Your task to perform on an android device: Go to battery settings Image 0: 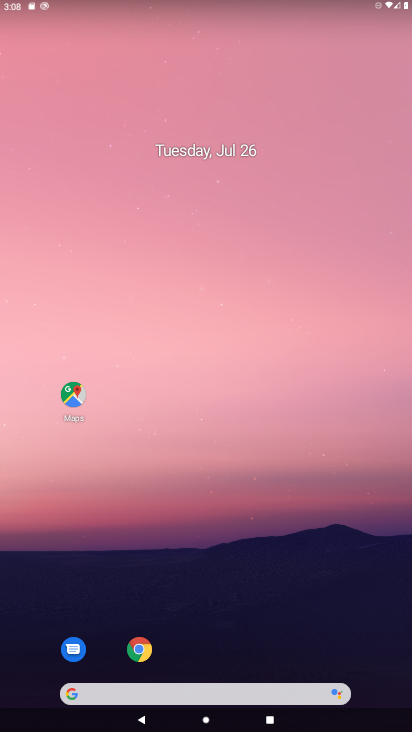
Step 0: drag from (207, 690) to (154, 86)
Your task to perform on an android device: Go to battery settings Image 1: 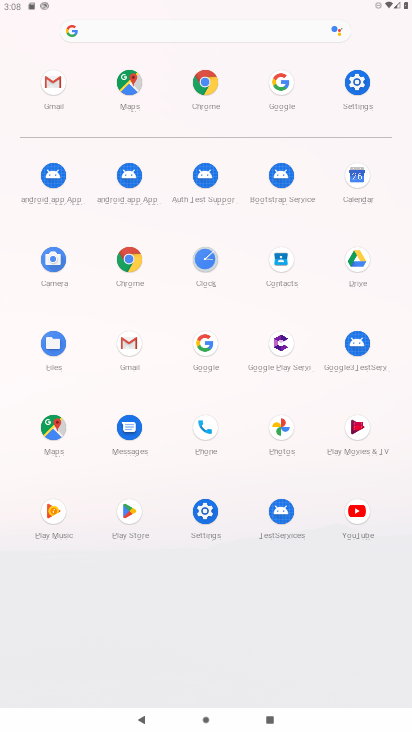
Step 1: click (367, 89)
Your task to perform on an android device: Go to battery settings Image 2: 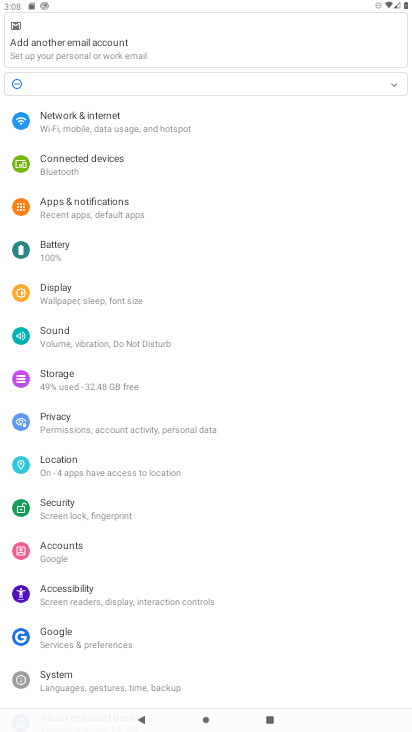
Step 2: click (66, 252)
Your task to perform on an android device: Go to battery settings Image 3: 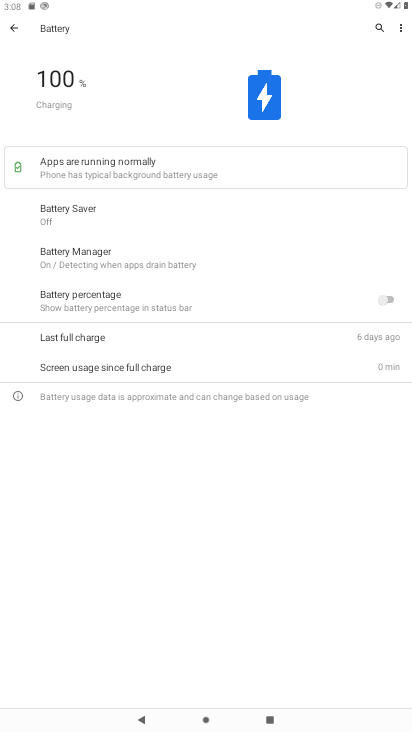
Step 3: task complete